Your task to perform on an android device: open app "Spotify: Music and Podcasts" (install if not already installed) Image 0: 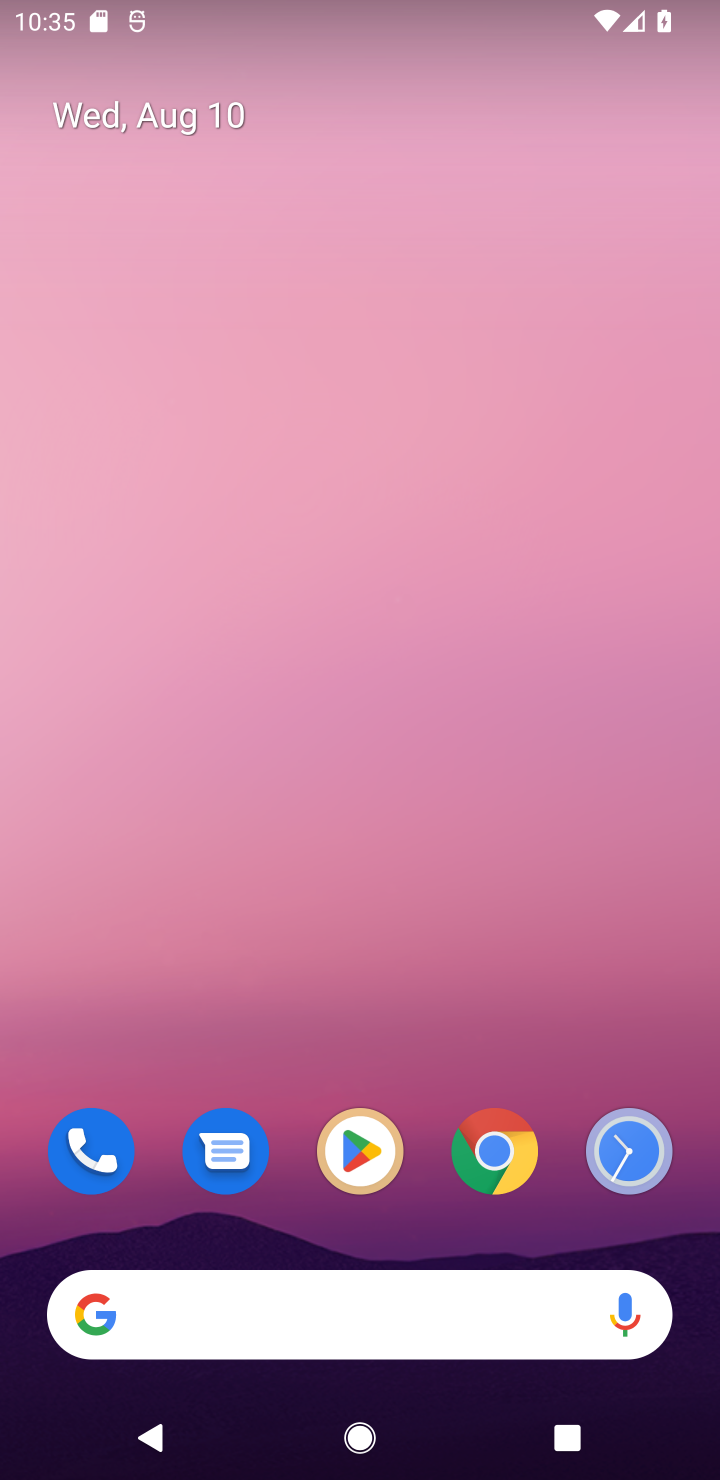
Step 0: press home button
Your task to perform on an android device: open app "Spotify: Music and Podcasts" (install if not already installed) Image 1: 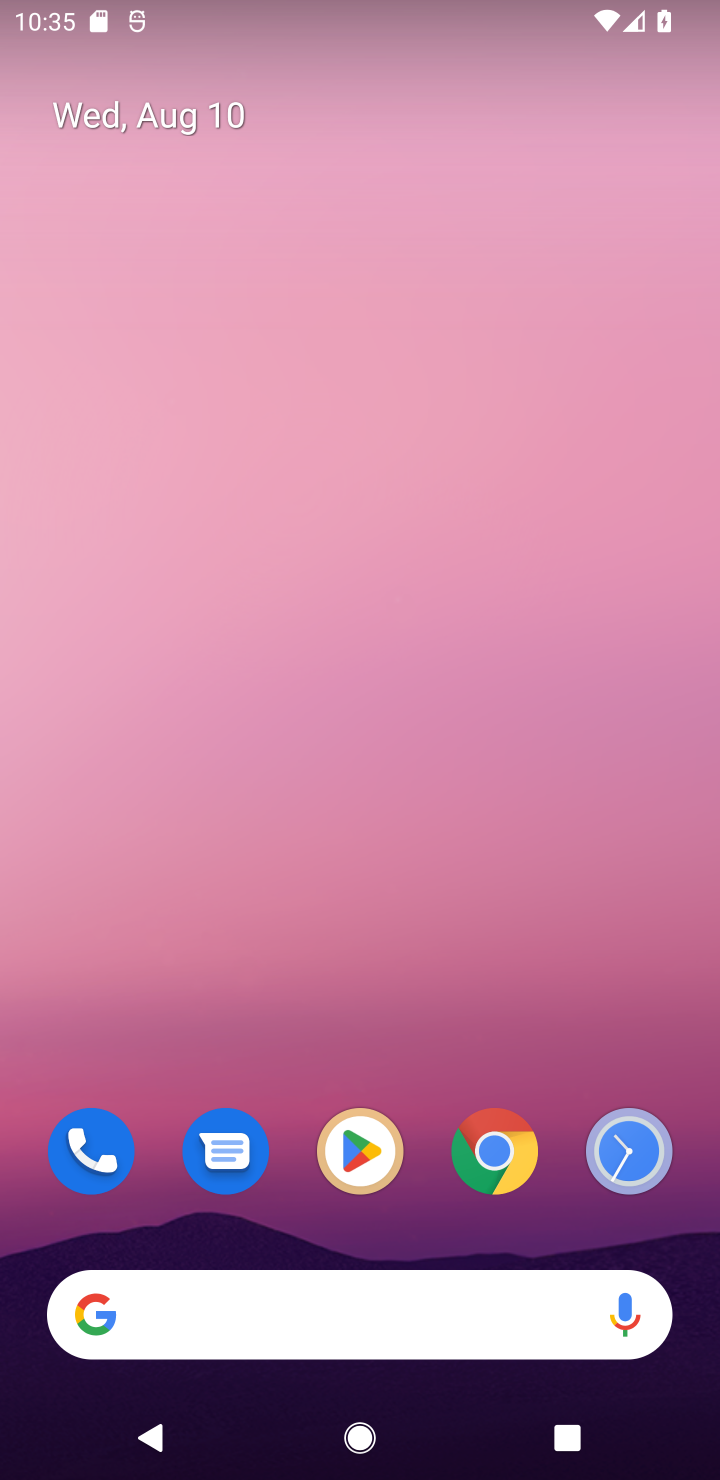
Step 1: drag from (414, 1042) to (521, 0)
Your task to perform on an android device: open app "Spotify: Music and Podcasts" (install if not already installed) Image 2: 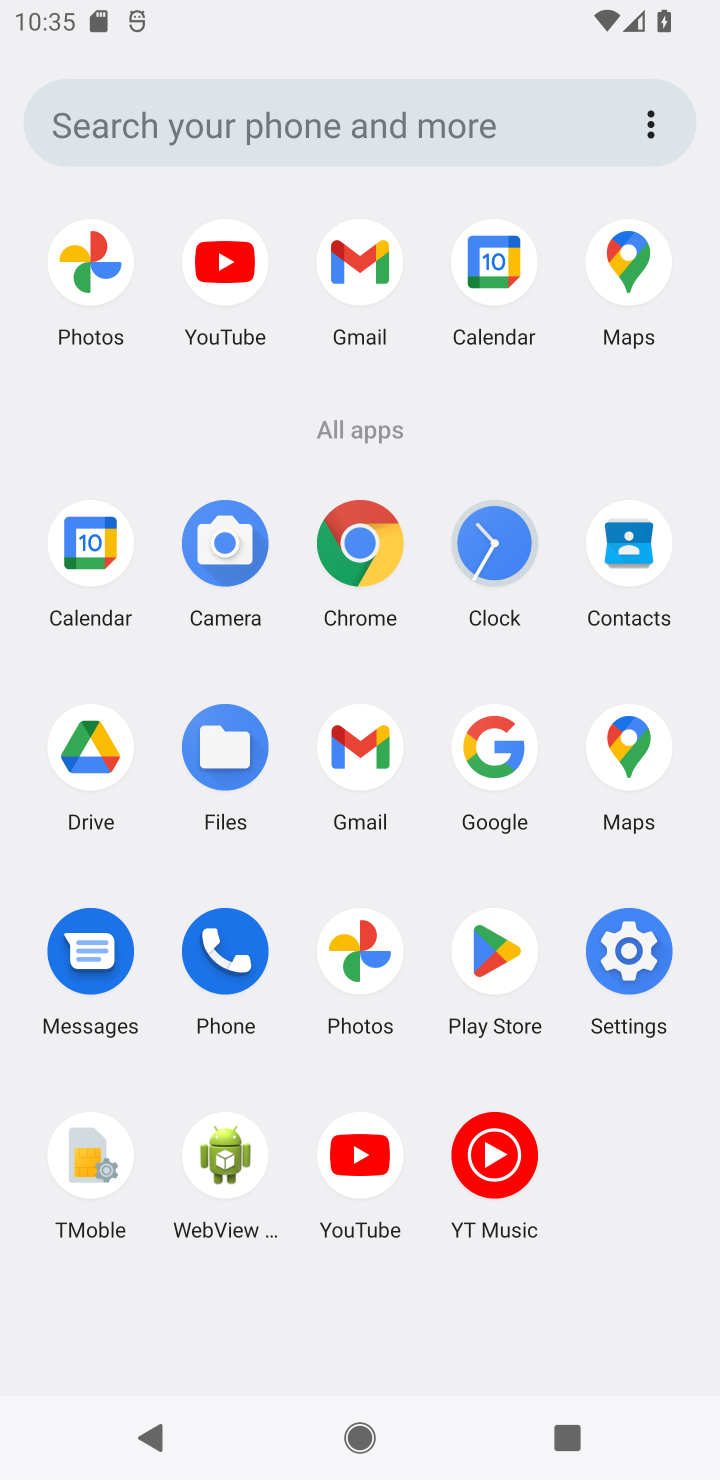
Step 2: click (487, 937)
Your task to perform on an android device: open app "Spotify: Music and Podcasts" (install if not already installed) Image 3: 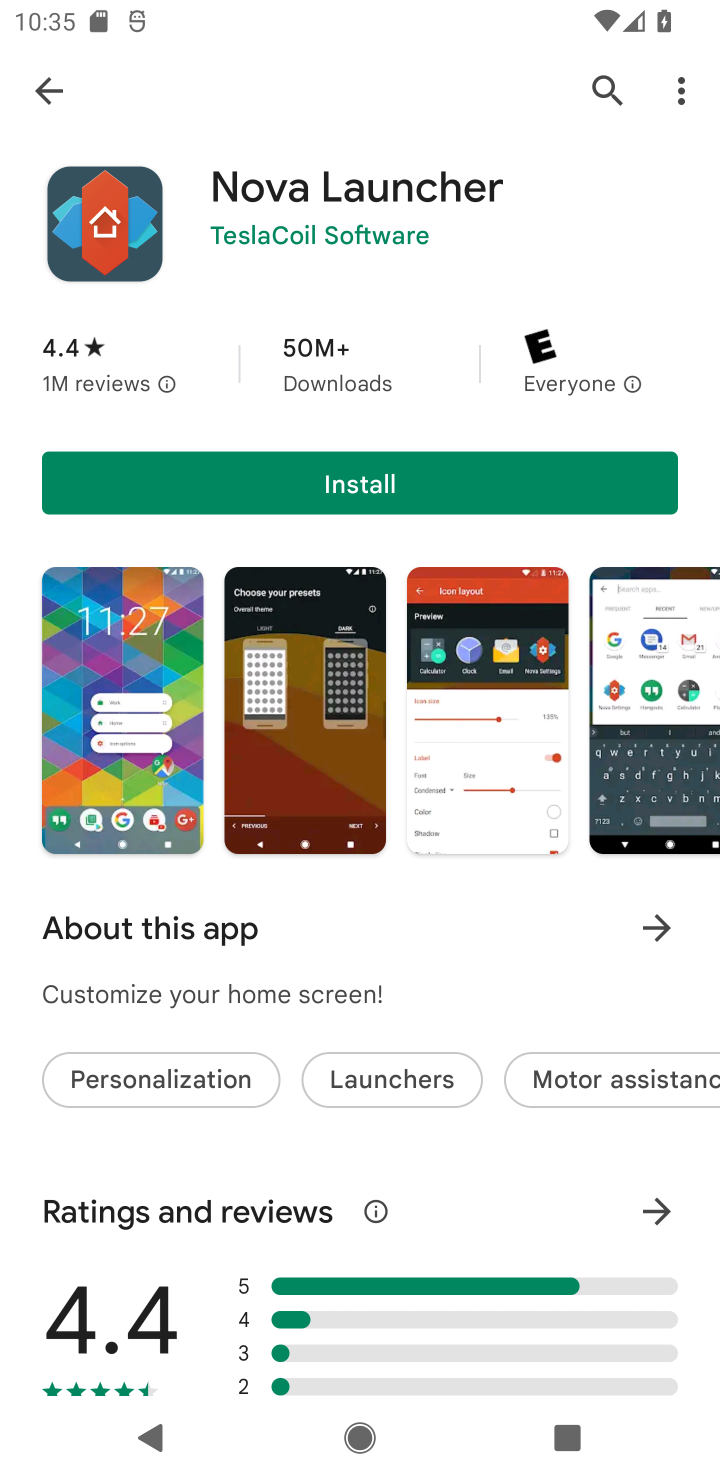
Step 3: click (52, 97)
Your task to perform on an android device: open app "Spotify: Music and Podcasts" (install if not already installed) Image 4: 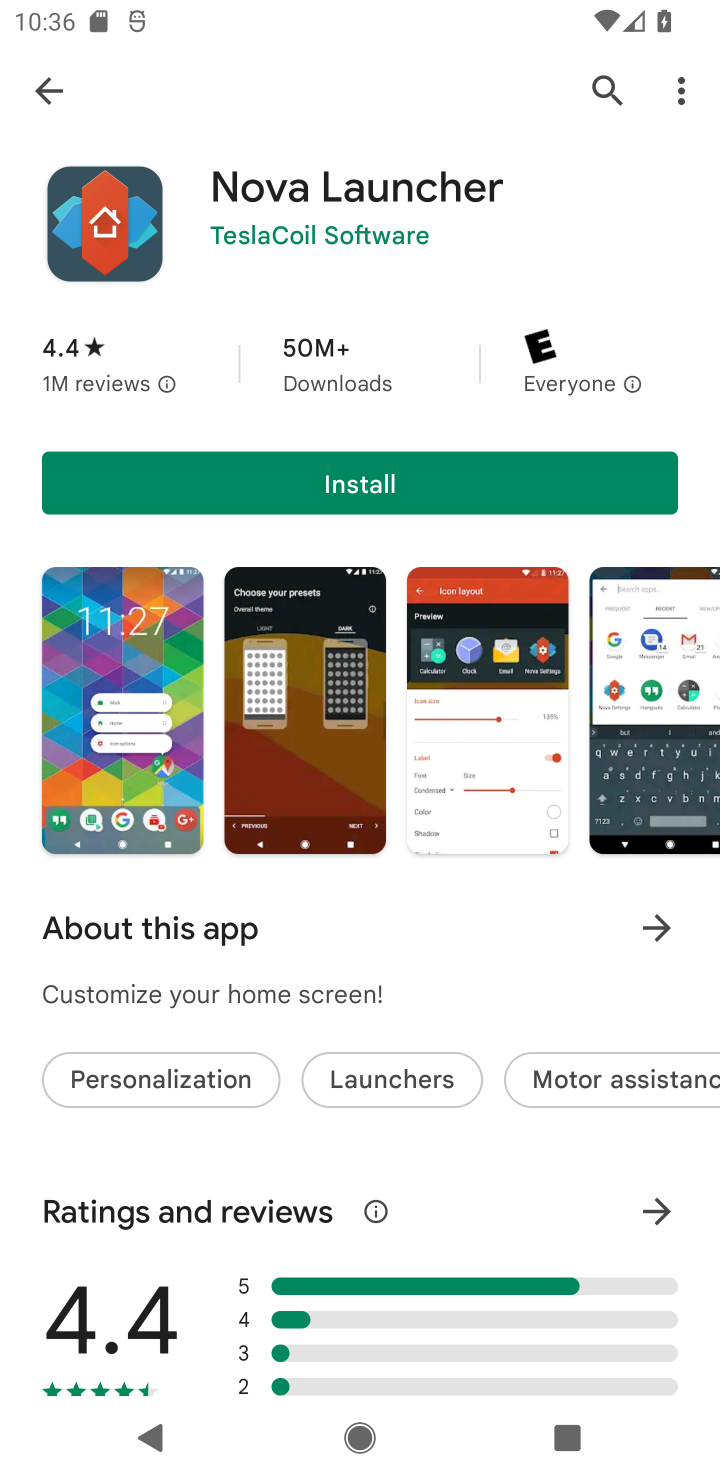
Step 4: click (44, 89)
Your task to perform on an android device: open app "Spotify: Music and Podcasts" (install if not already installed) Image 5: 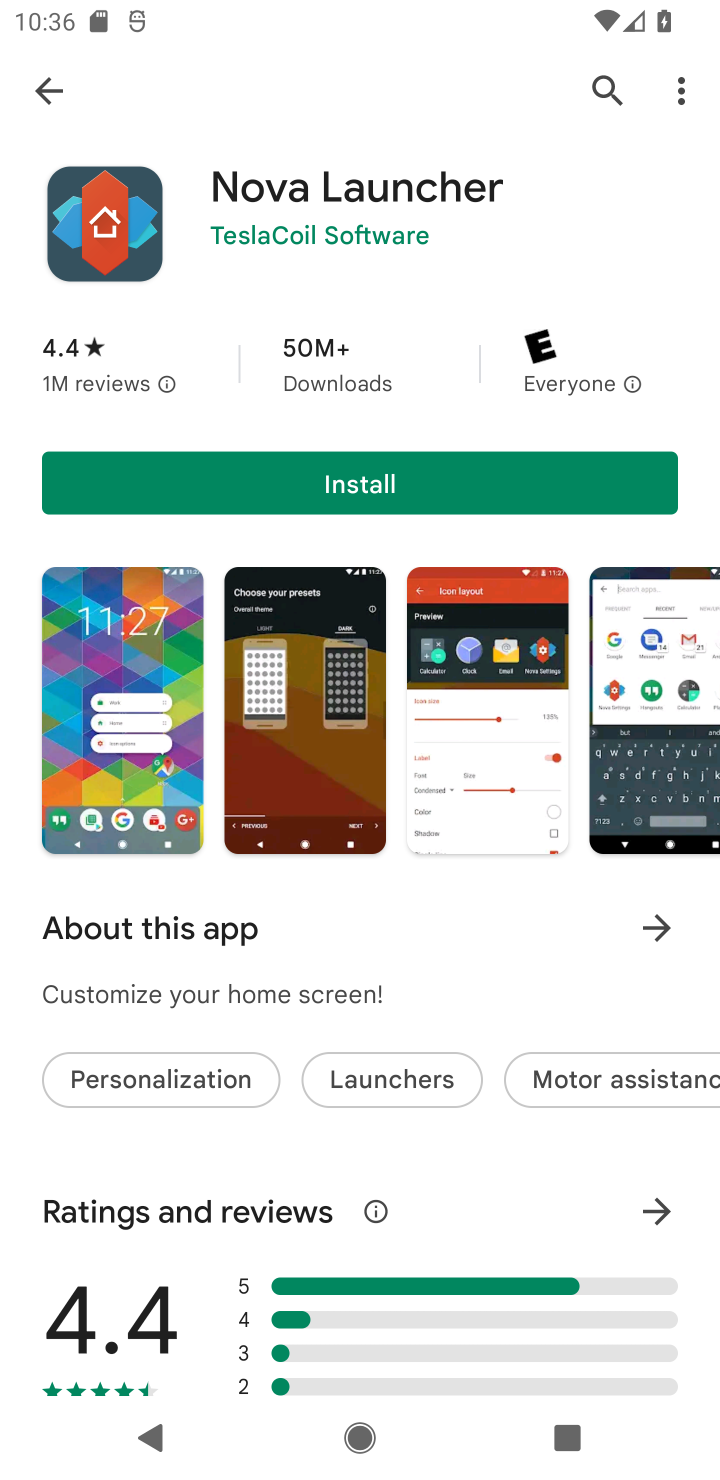
Step 5: click (613, 88)
Your task to perform on an android device: open app "Spotify: Music and Podcasts" (install if not already installed) Image 6: 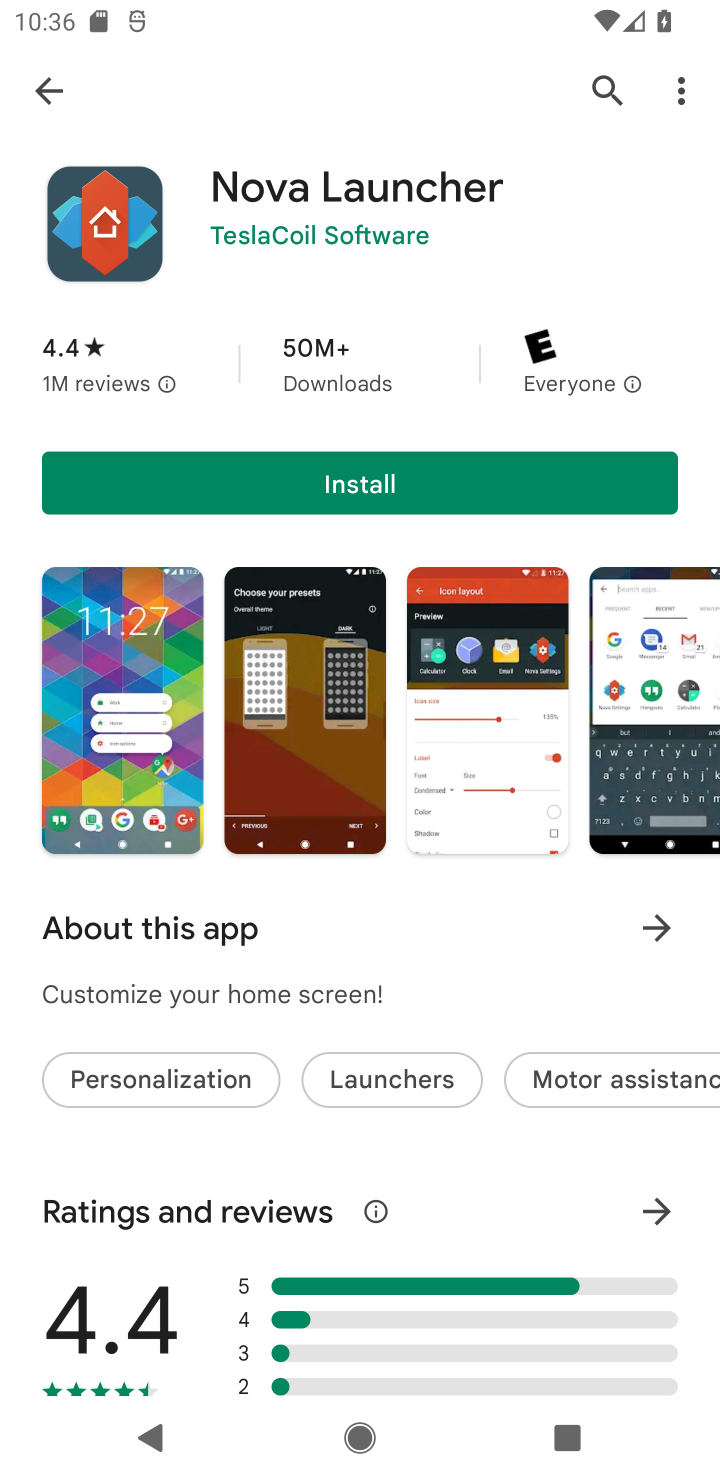
Step 6: click (603, 86)
Your task to perform on an android device: open app "Spotify: Music and Podcasts" (install if not already installed) Image 7: 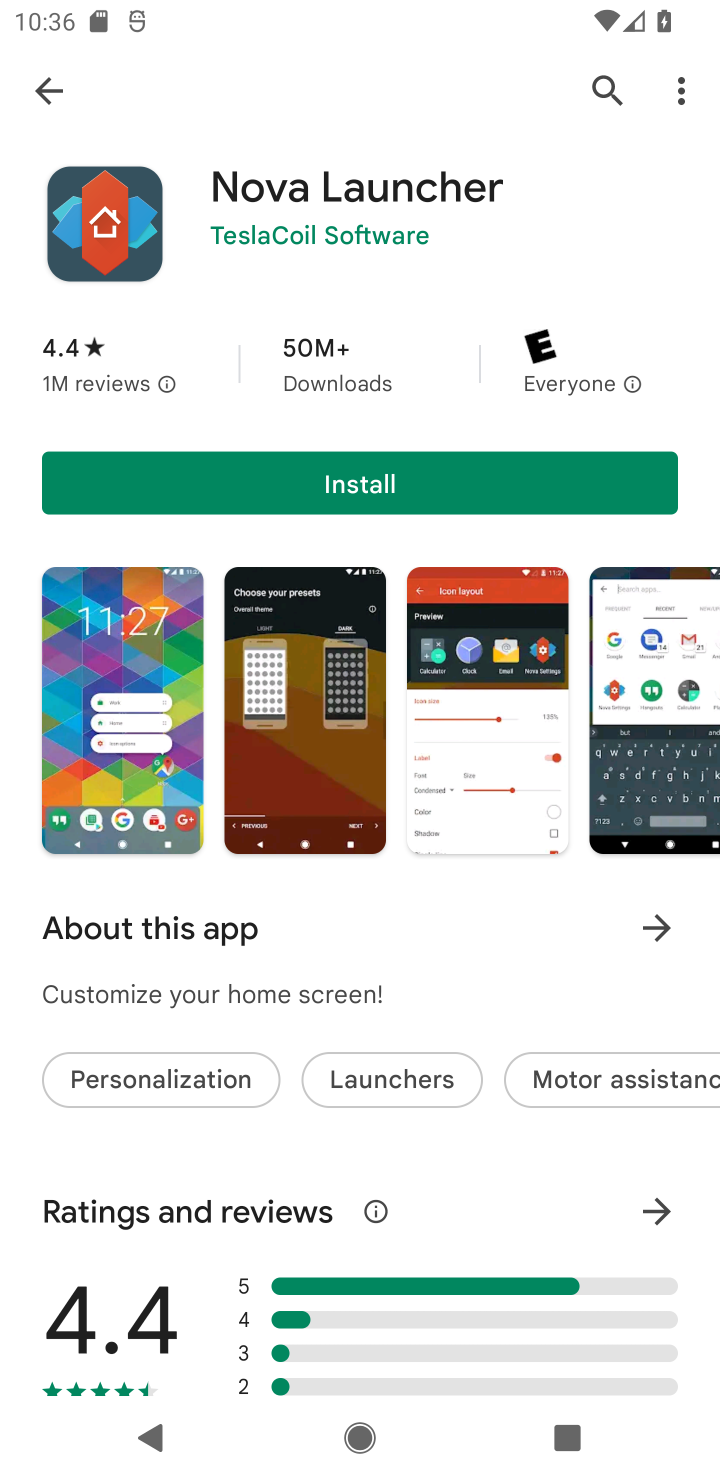
Step 7: click (602, 77)
Your task to perform on an android device: open app "Spotify: Music and Podcasts" (install if not already installed) Image 8: 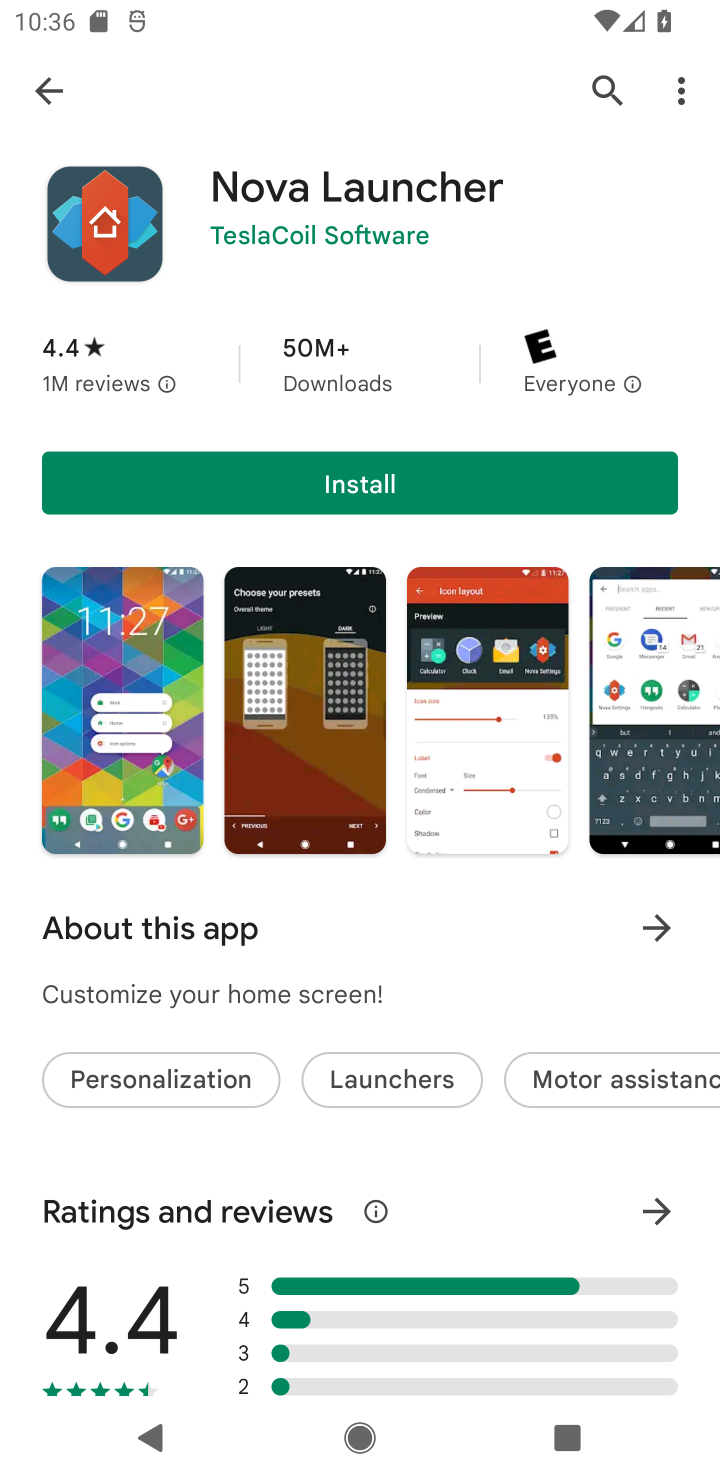
Step 8: click (61, 100)
Your task to perform on an android device: open app "Spotify: Music and Podcasts" (install if not already installed) Image 9: 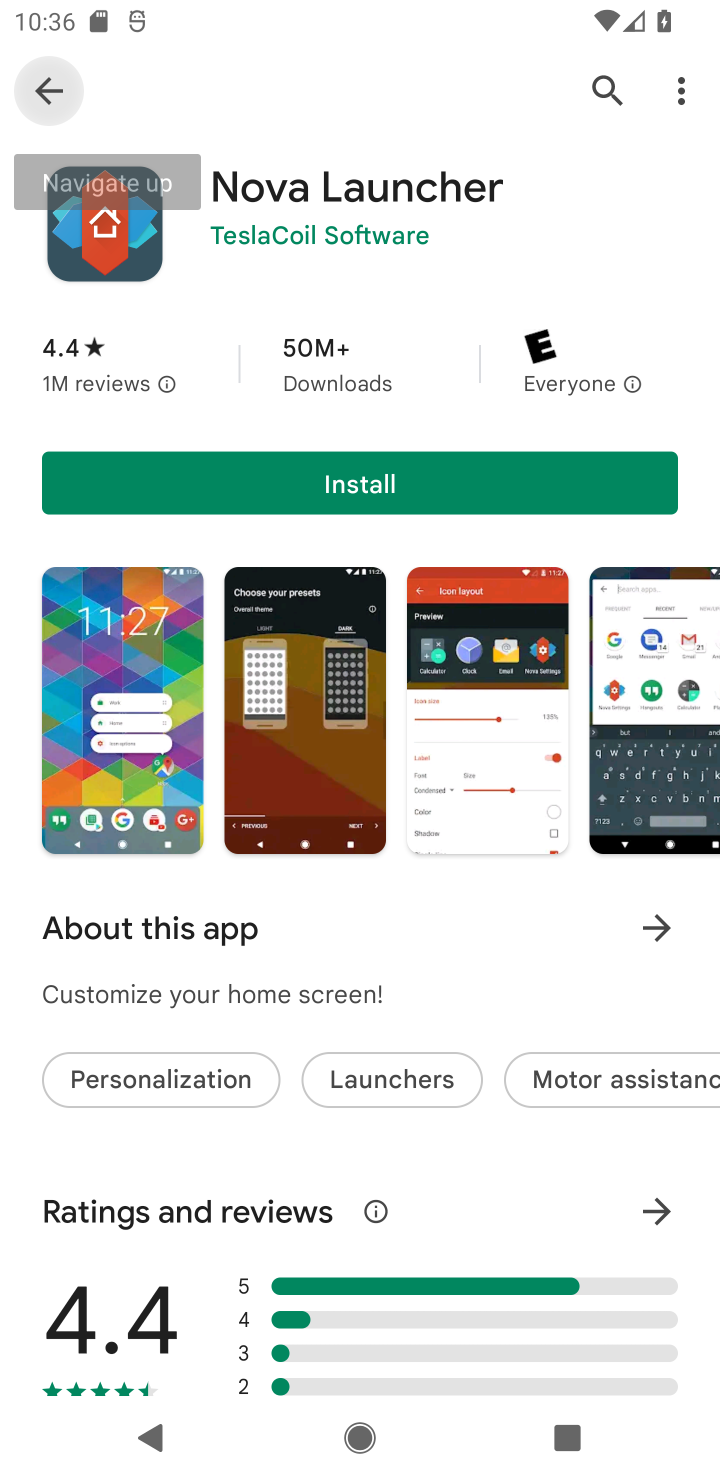
Step 9: press back button
Your task to perform on an android device: open app "Spotify: Music and Podcasts" (install if not already installed) Image 10: 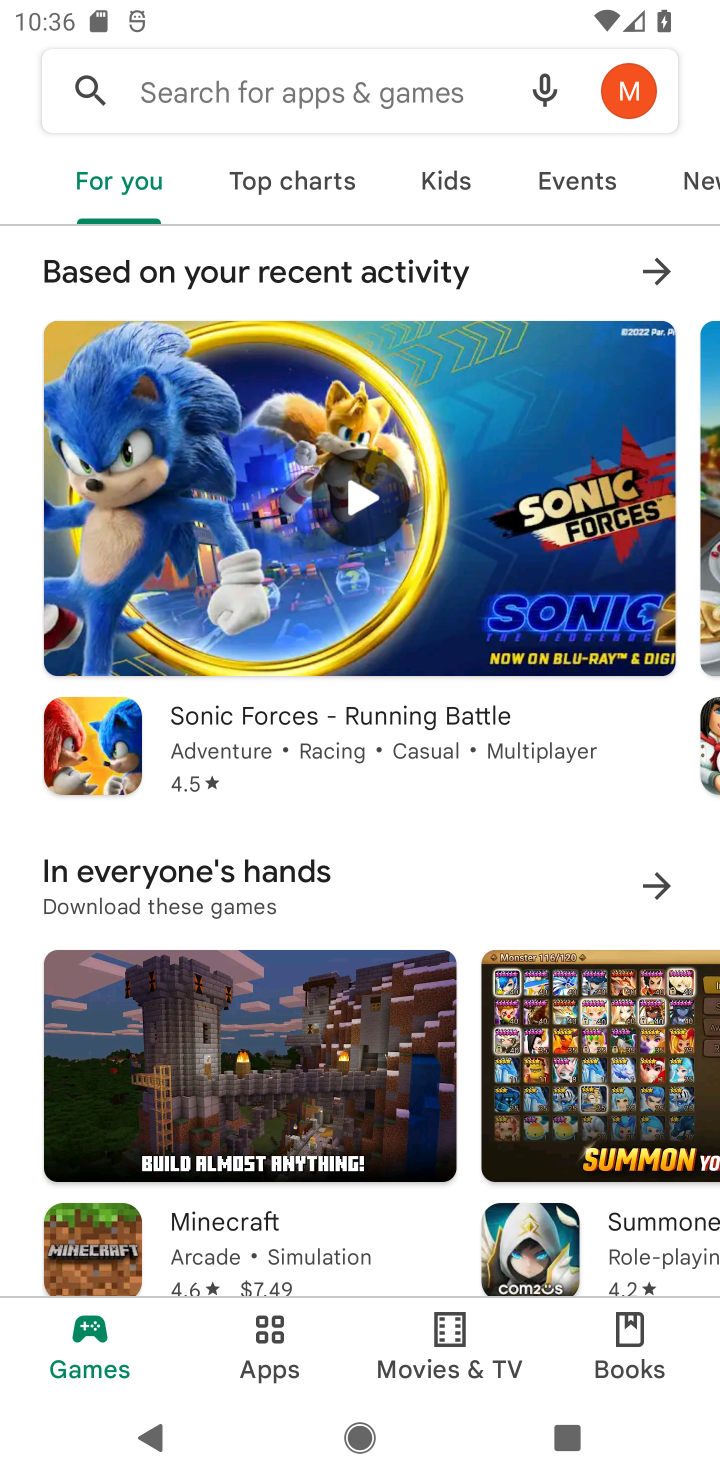
Step 10: click (287, 96)
Your task to perform on an android device: open app "Spotify: Music and Podcasts" (install if not already installed) Image 11: 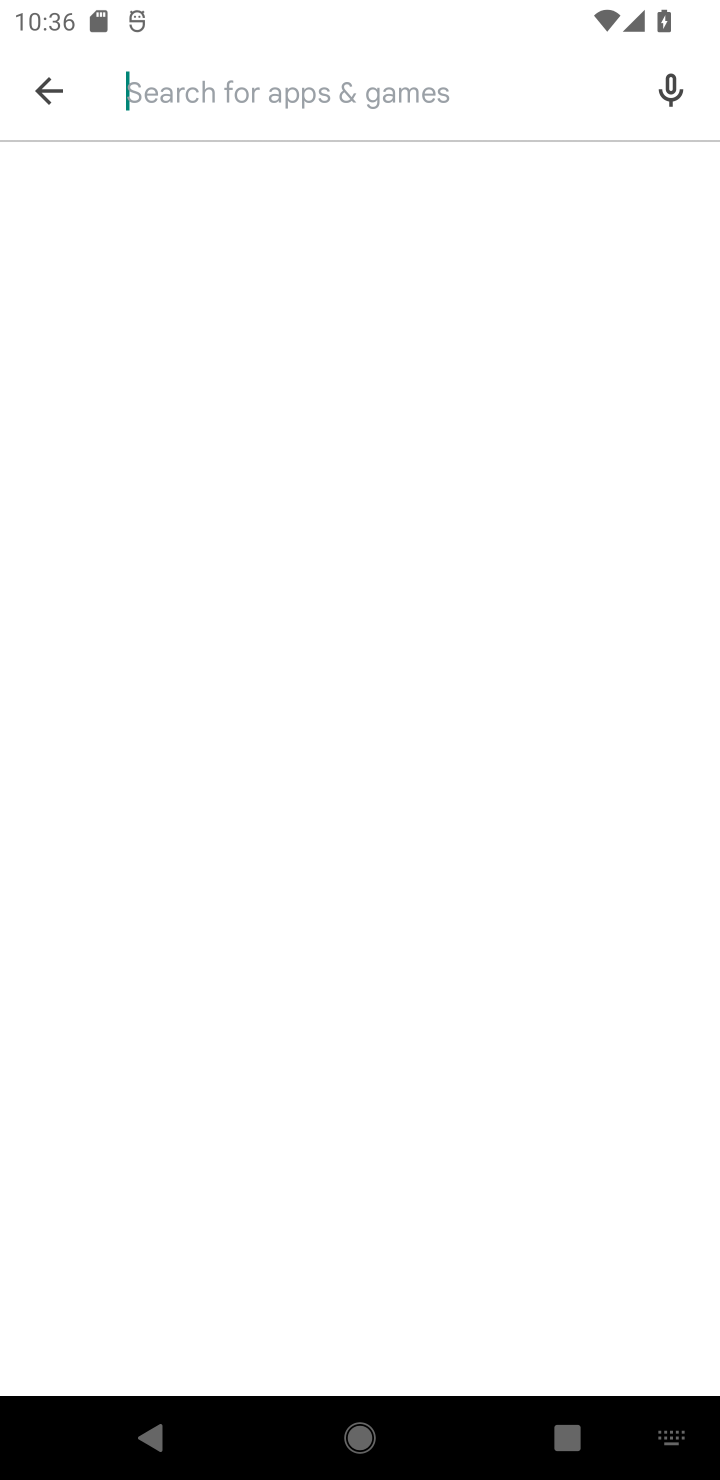
Step 11: type "Spotify: Music and Podcasts"
Your task to perform on an android device: open app "Spotify: Music and Podcasts" (install if not already installed) Image 12: 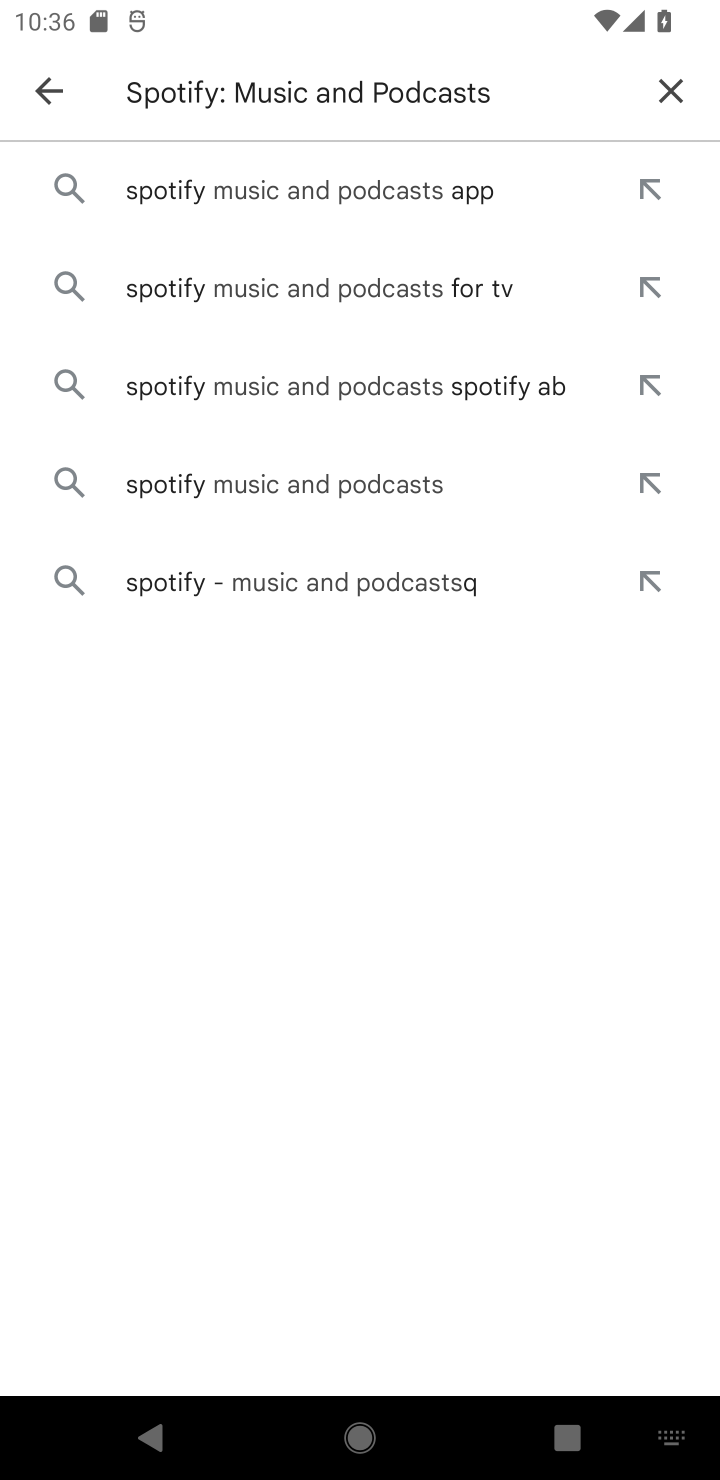
Step 12: click (312, 176)
Your task to perform on an android device: open app "Spotify: Music and Podcasts" (install if not already installed) Image 13: 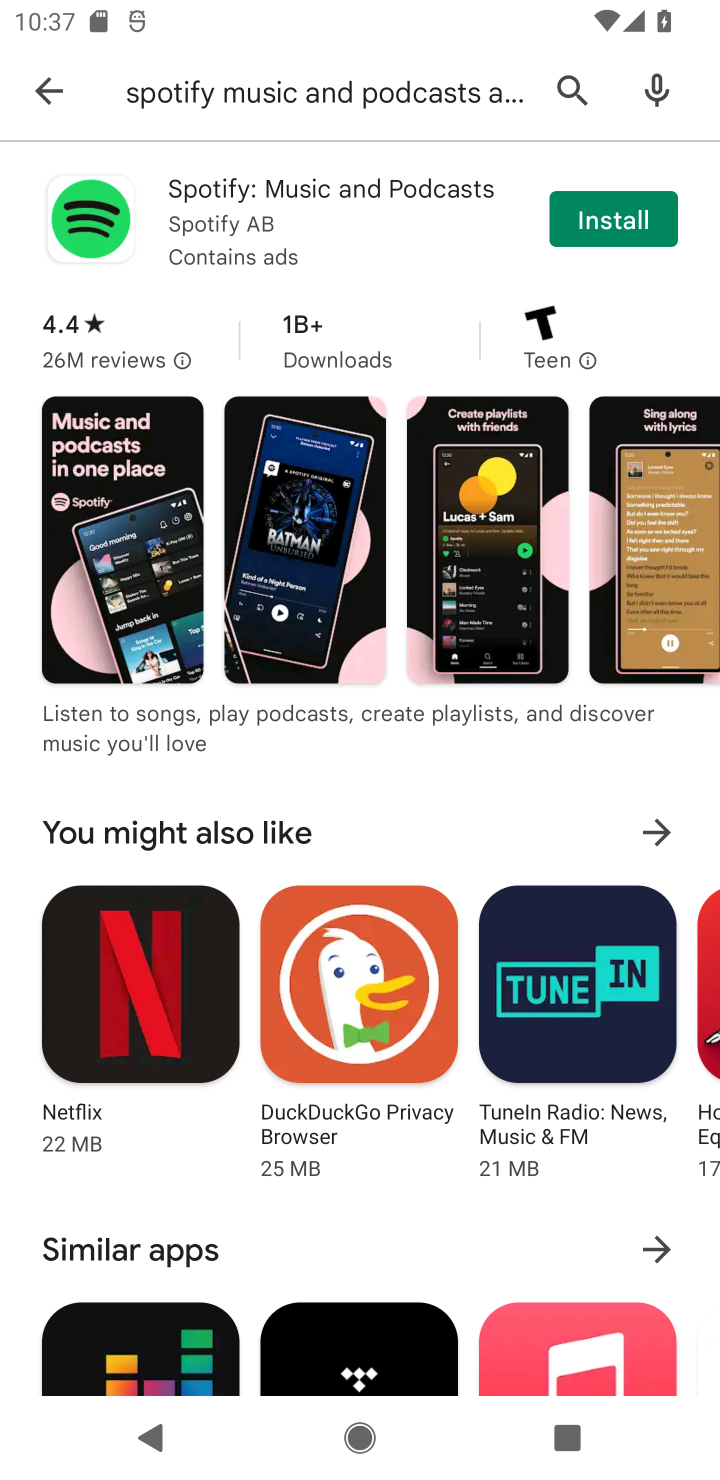
Step 13: click (601, 206)
Your task to perform on an android device: open app "Spotify: Music and Podcasts" (install if not already installed) Image 14: 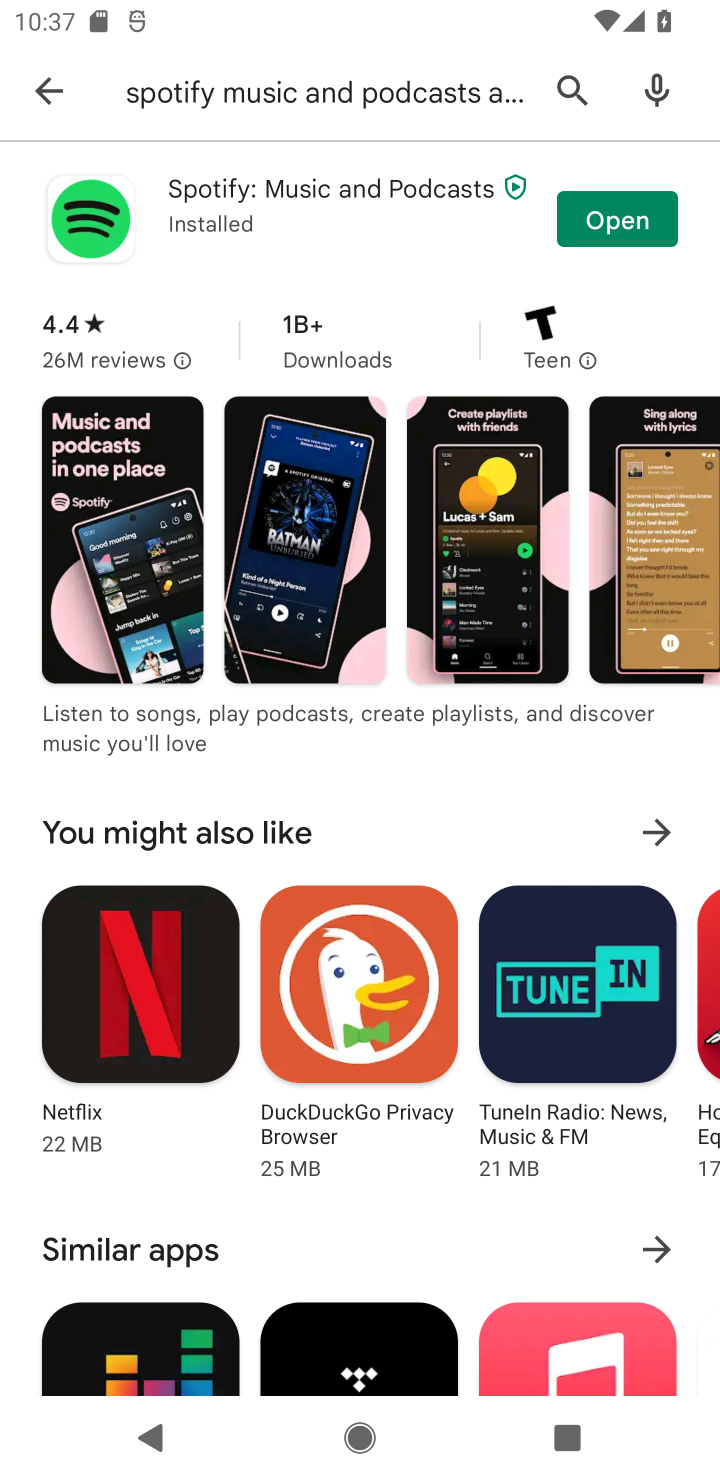
Step 14: click (607, 212)
Your task to perform on an android device: open app "Spotify: Music and Podcasts" (install if not already installed) Image 15: 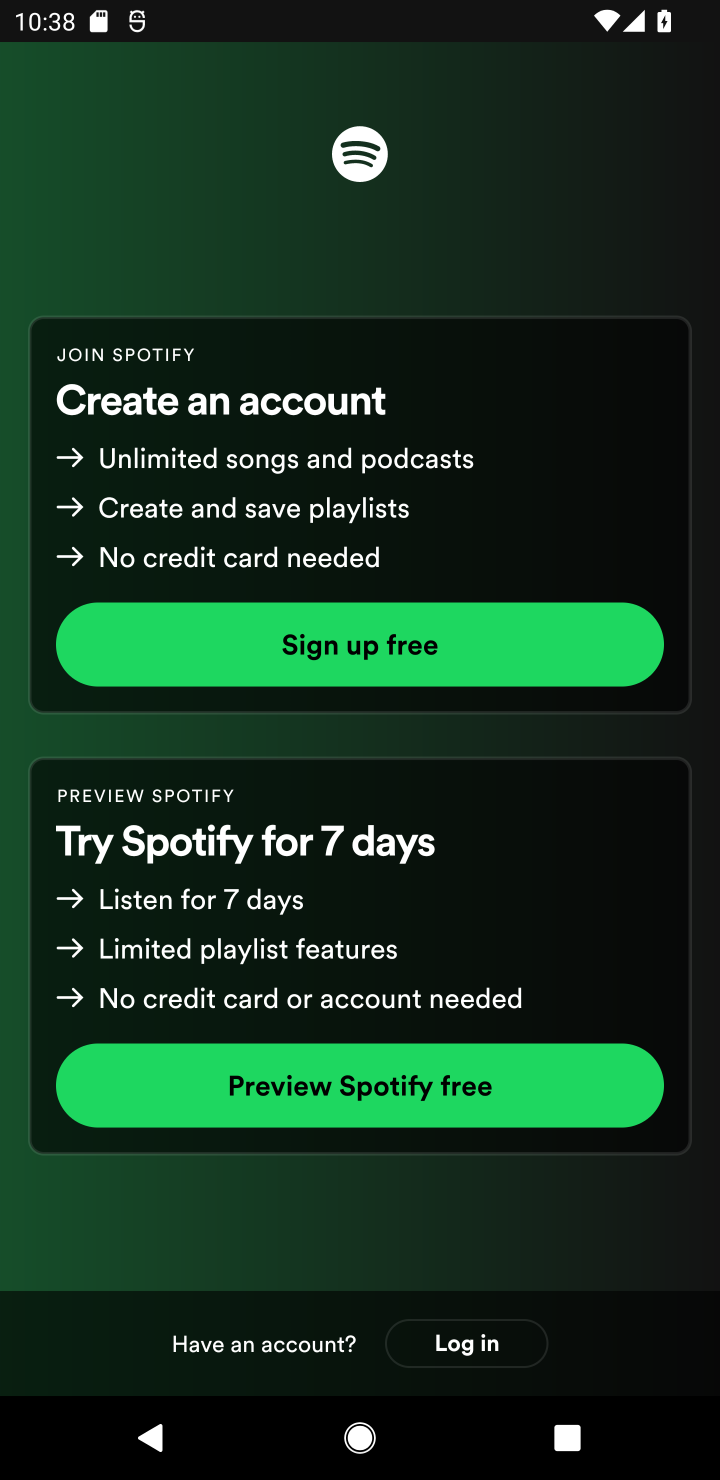
Step 15: task complete